Your task to perform on an android device: allow cookies in the chrome app Image 0: 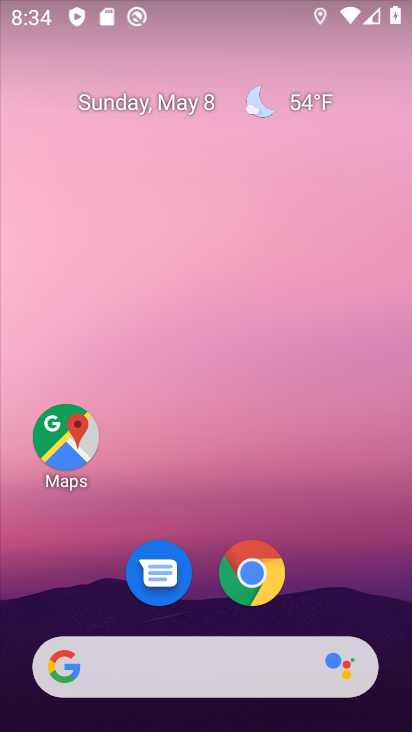
Step 0: click (253, 567)
Your task to perform on an android device: allow cookies in the chrome app Image 1: 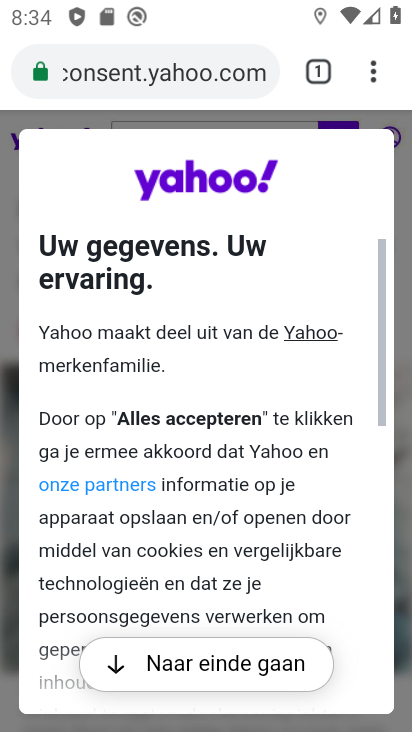
Step 1: drag from (237, 592) to (235, 104)
Your task to perform on an android device: allow cookies in the chrome app Image 2: 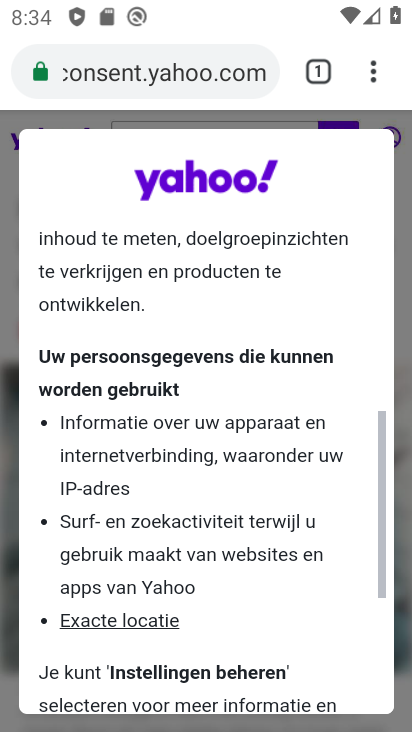
Step 2: drag from (237, 679) to (251, 303)
Your task to perform on an android device: allow cookies in the chrome app Image 3: 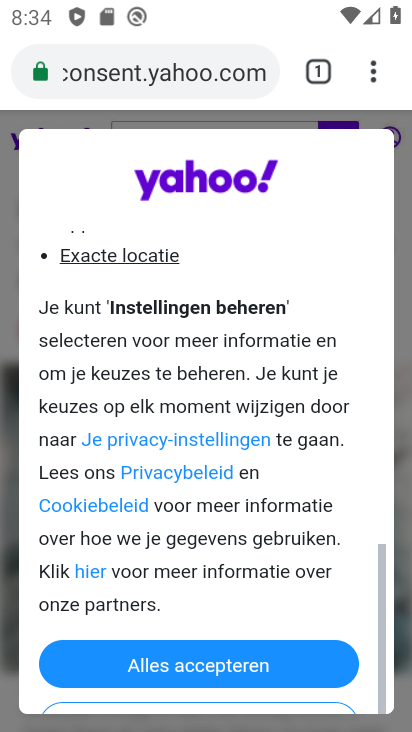
Step 3: drag from (199, 629) to (198, 331)
Your task to perform on an android device: allow cookies in the chrome app Image 4: 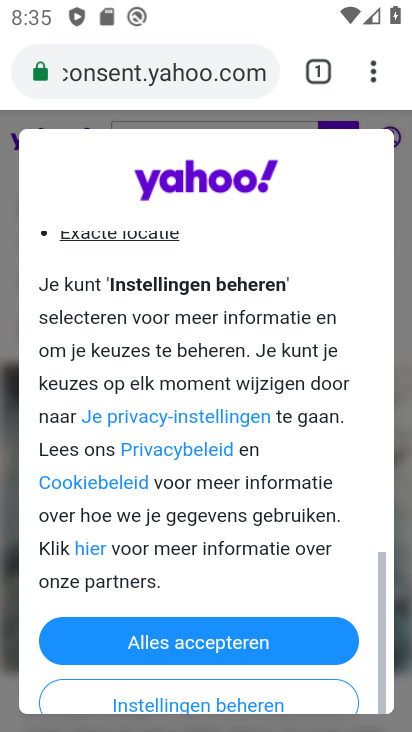
Step 4: drag from (374, 78) to (322, 560)
Your task to perform on an android device: allow cookies in the chrome app Image 5: 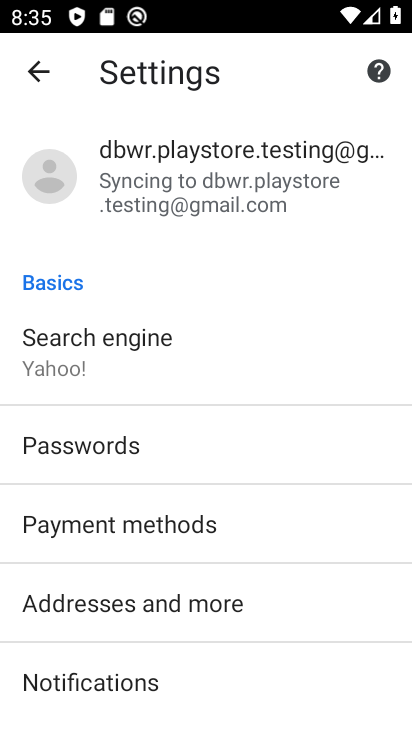
Step 5: drag from (147, 668) to (162, 148)
Your task to perform on an android device: allow cookies in the chrome app Image 6: 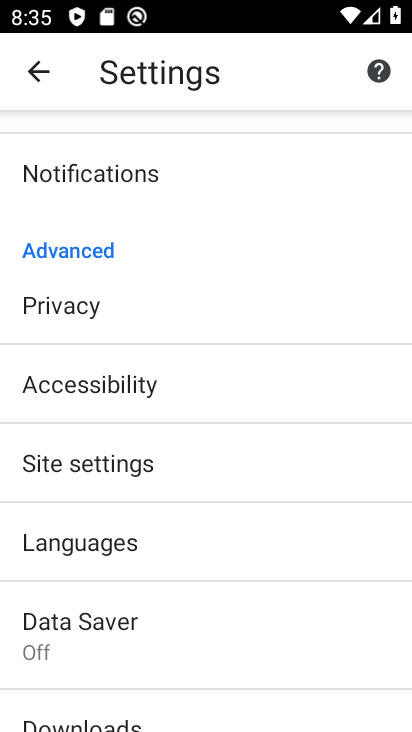
Step 6: drag from (151, 688) to (145, 491)
Your task to perform on an android device: allow cookies in the chrome app Image 7: 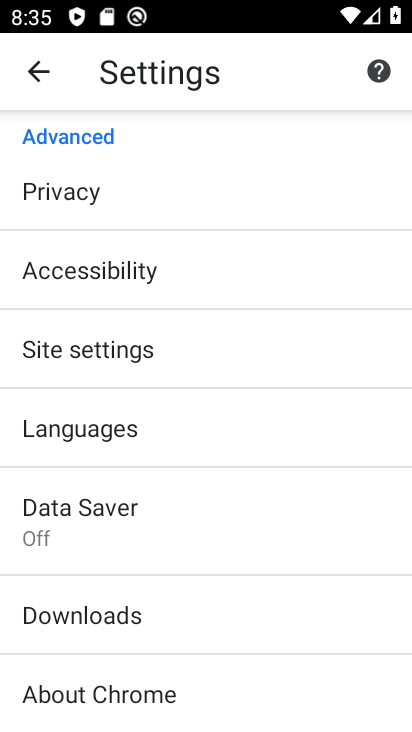
Step 7: click (123, 342)
Your task to perform on an android device: allow cookies in the chrome app Image 8: 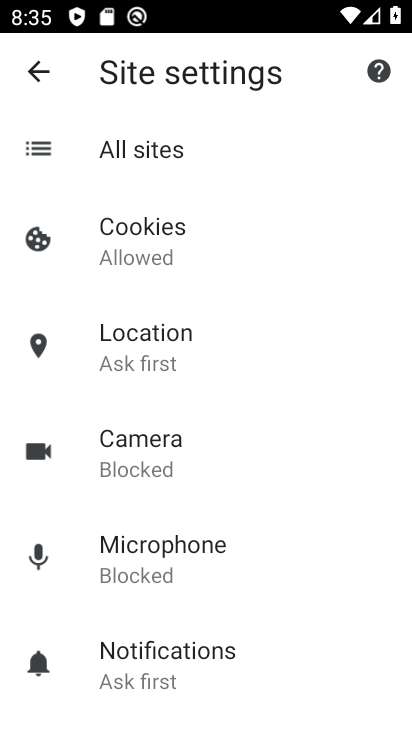
Step 8: click (152, 235)
Your task to perform on an android device: allow cookies in the chrome app Image 9: 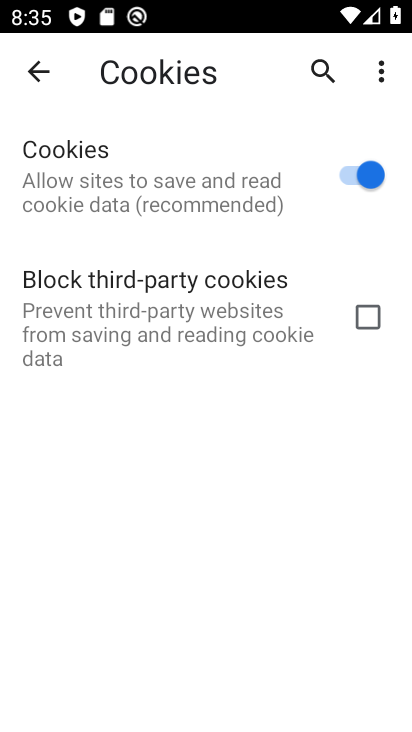
Step 9: task complete